Your task to perform on an android device: Open settings on Google Maps Image 0: 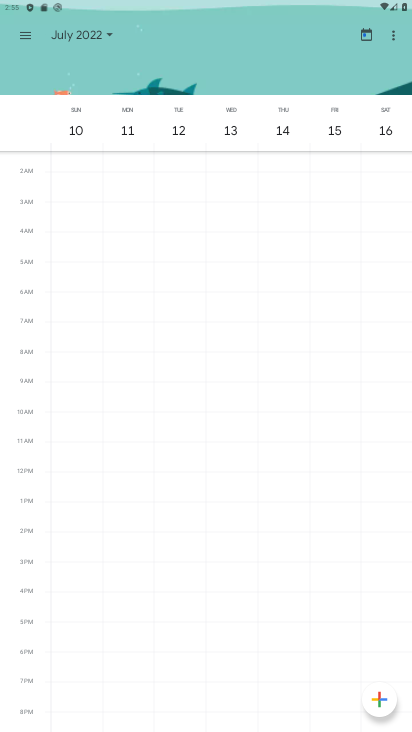
Step 0: press home button
Your task to perform on an android device: Open settings on Google Maps Image 1: 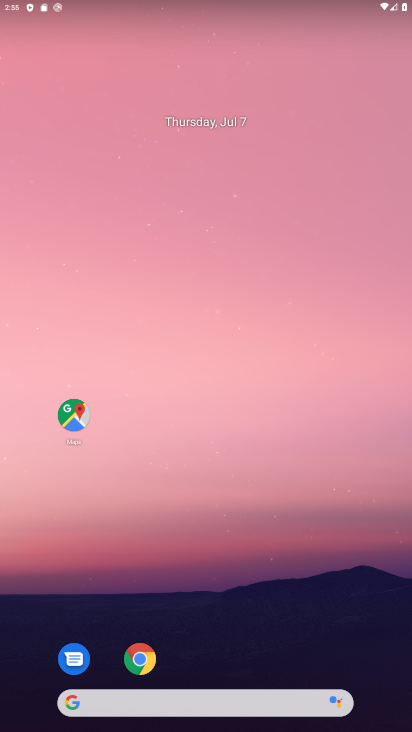
Step 1: click (71, 419)
Your task to perform on an android device: Open settings on Google Maps Image 2: 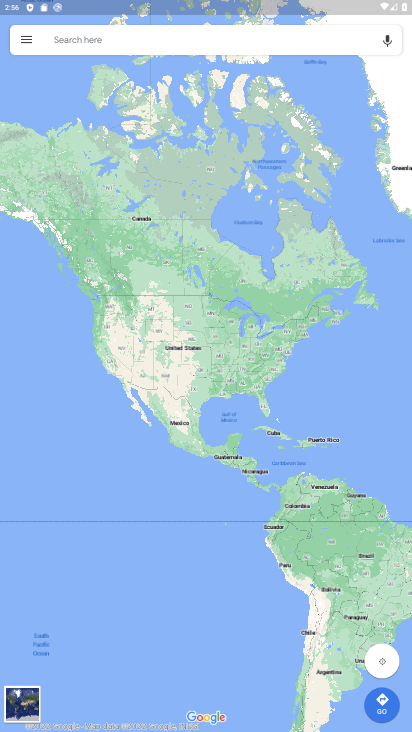
Step 2: press home button
Your task to perform on an android device: Open settings on Google Maps Image 3: 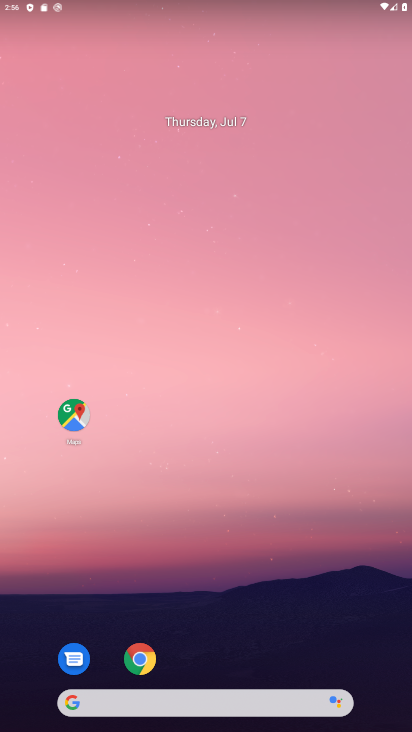
Step 3: click (66, 419)
Your task to perform on an android device: Open settings on Google Maps Image 4: 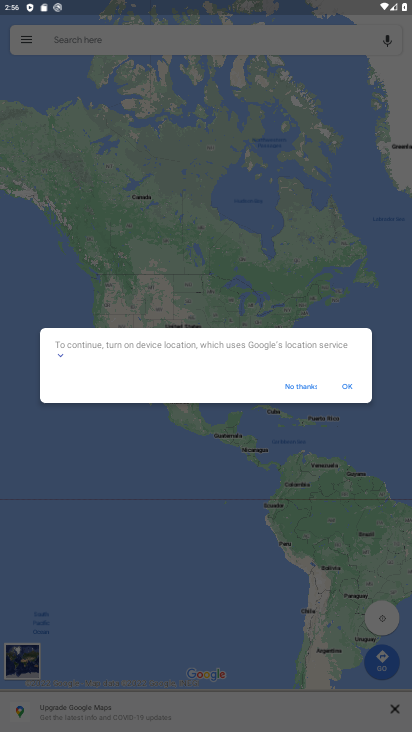
Step 4: click (316, 386)
Your task to perform on an android device: Open settings on Google Maps Image 5: 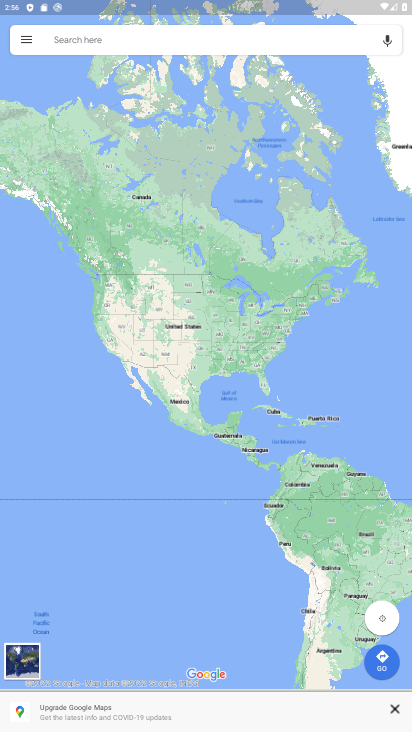
Step 5: click (27, 45)
Your task to perform on an android device: Open settings on Google Maps Image 6: 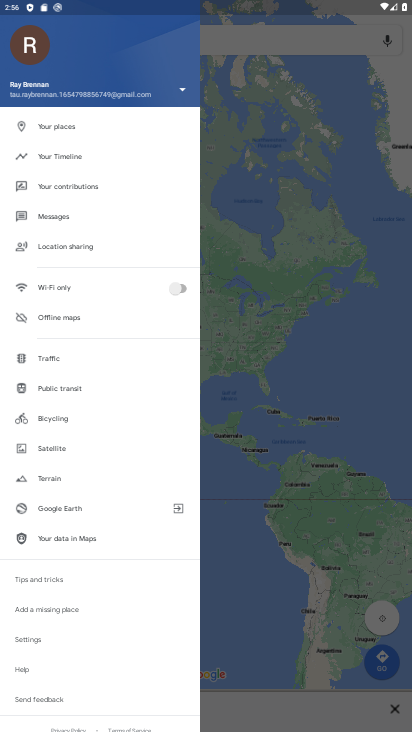
Step 6: click (67, 640)
Your task to perform on an android device: Open settings on Google Maps Image 7: 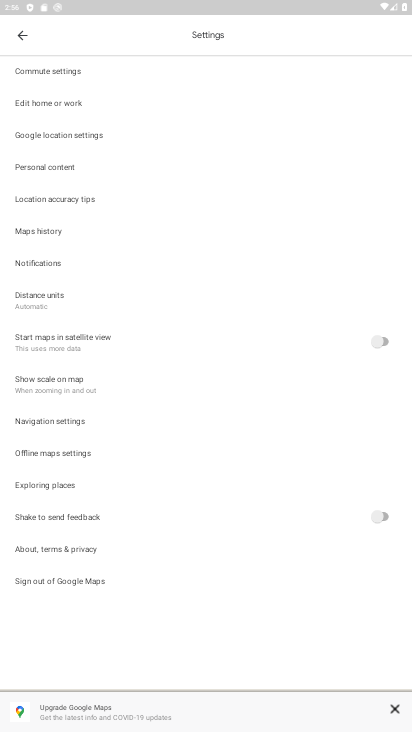
Step 7: task complete